Your task to perform on an android device: choose inbox layout in the gmail app Image 0: 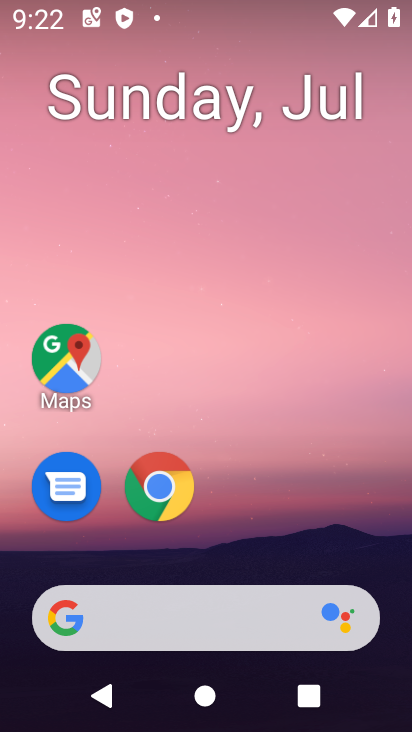
Step 0: drag from (349, 550) to (393, 100)
Your task to perform on an android device: choose inbox layout in the gmail app Image 1: 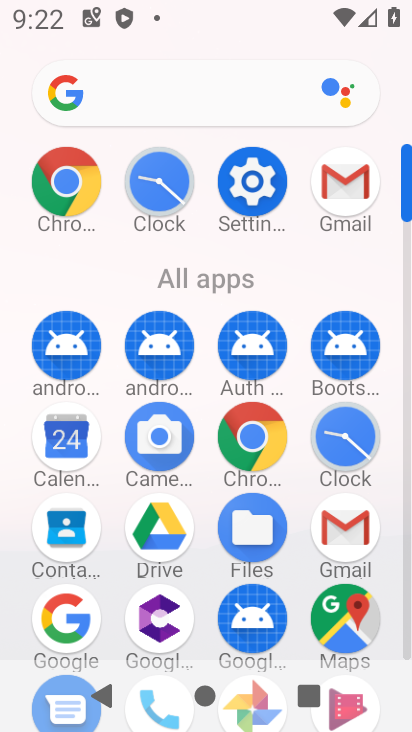
Step 1: click (346, 523)
Your task to perform on an android device: choose inbox layout in the gmail app Image 2: 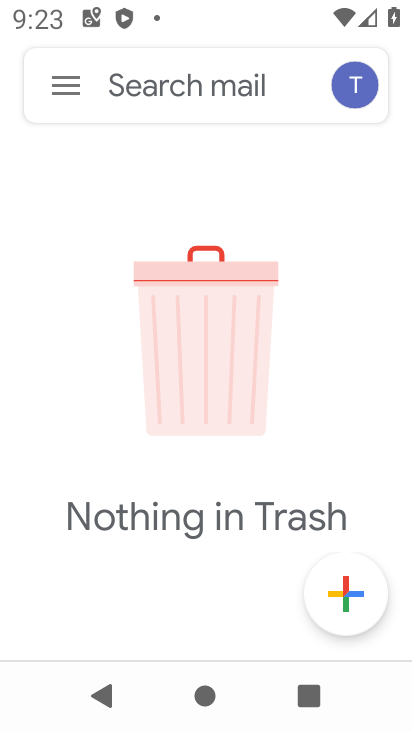
Step 2: click (71, 86)
Your task to perform on an android device: choose inbox layout in the gmail app Image 3: 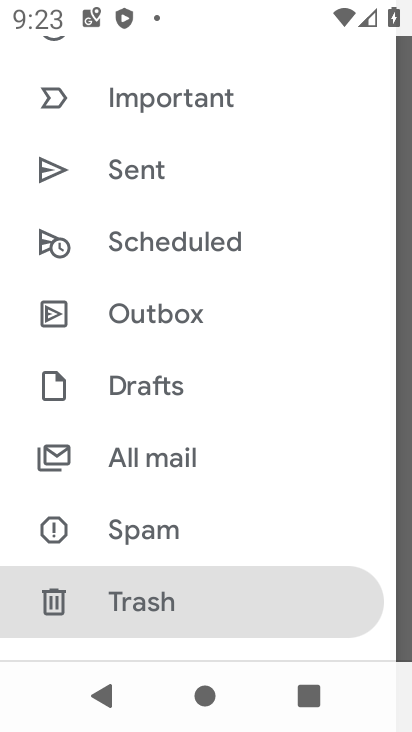
Step 3: drag from (302, 220) to (301, 345)
Your task to perform on an android device: choose inbox layout in the gmail app Image 4: 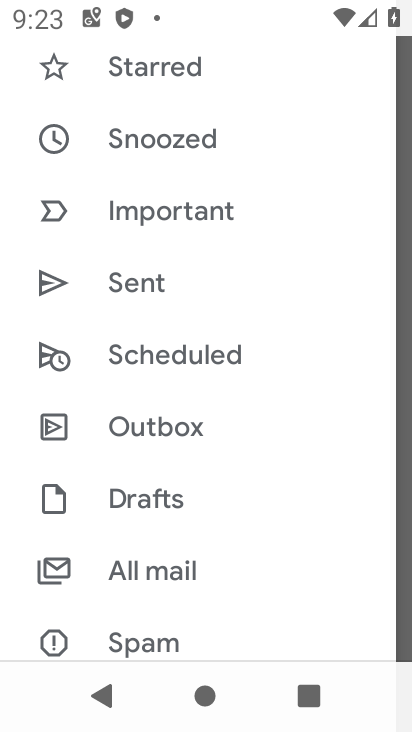
Step 4: drag from (300, 160) to (311, 364)
Your task to perform on an android device: choose inbox layout in the gmail app Image 5: 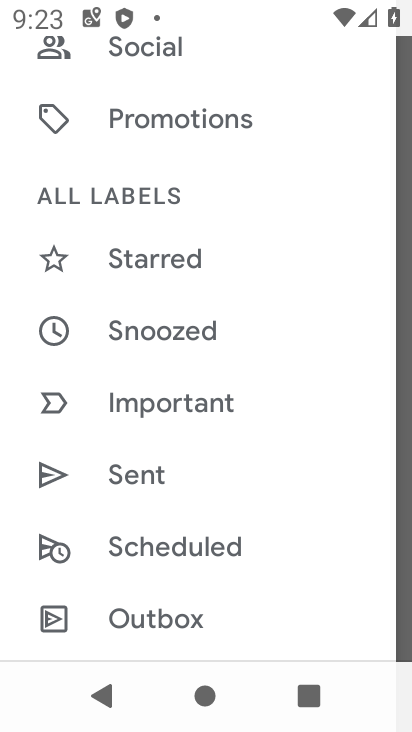
Step 5: drag from (305, 120) to (309, 332)
Your task to perform on an android device: choose inbox layout in the gmail app Image 6: 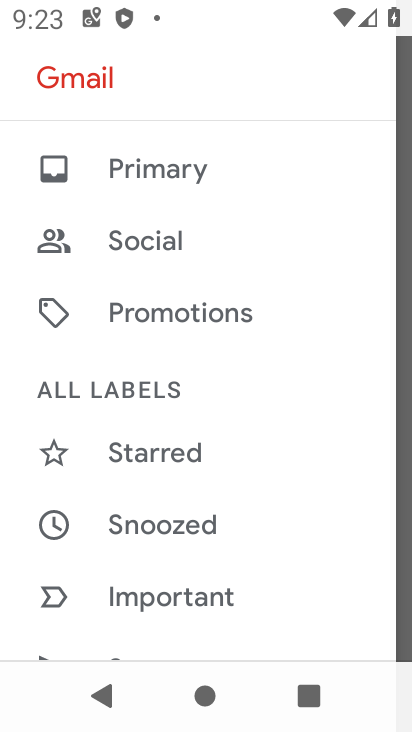
Step 6: drag from (330, 188) to (328, 323)
Your task to perform on an android device: choose inbox layout in the gmail app Image 7: 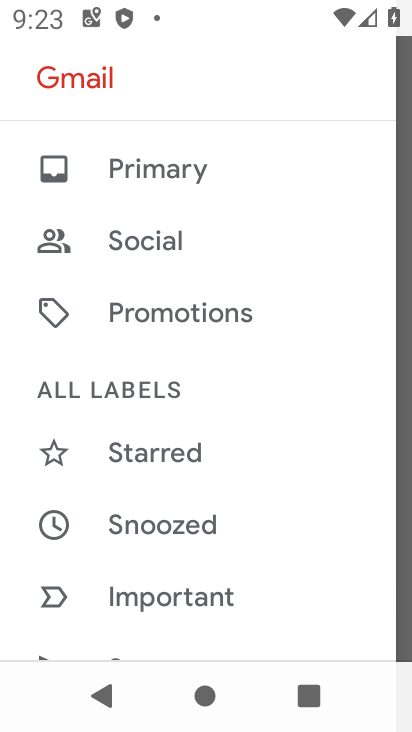
Step 7: drag from (320, 404) to (329, 317)
Your task to perform on an android device: choose inbox layout in the gmail app Image 8: 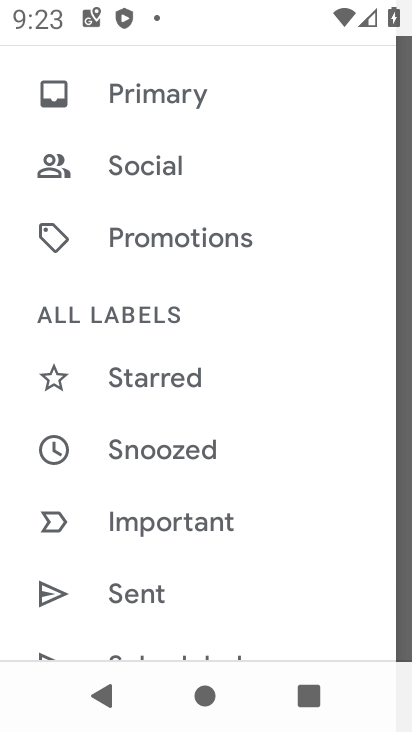
Step 8: drag from (324, 451) to (340, 315)
Your task to perform on an android device: choose inbox layout in the gmail app Image 9: 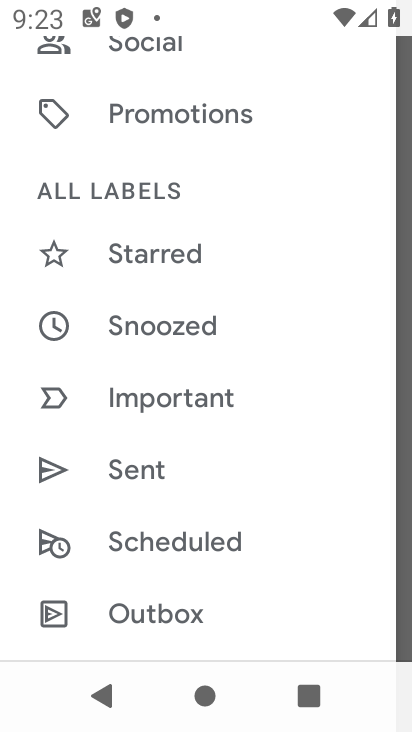
Step 9: drag from (327, 453) to (322, 314)
Your task to perform on an android device: choose inbox layout in the gmail app Image 10: 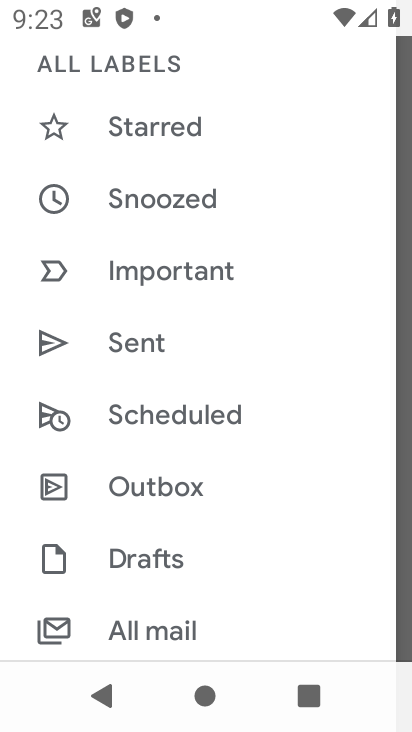
Step 10: drag from (323, 470) to (322, 357)
Your task to perform on an android device: choose inbox layout in the gmail app Image 11: 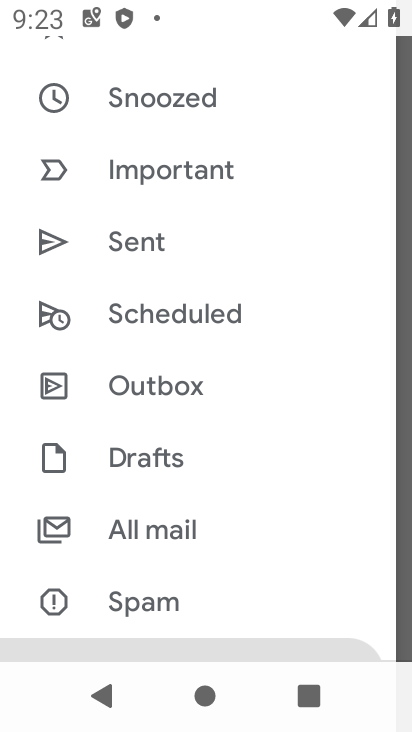
Step 11: drag from (320, 515) to (323, 346)
Your task to perform on an android device: choose inbox layout in the gmail app Image 12: 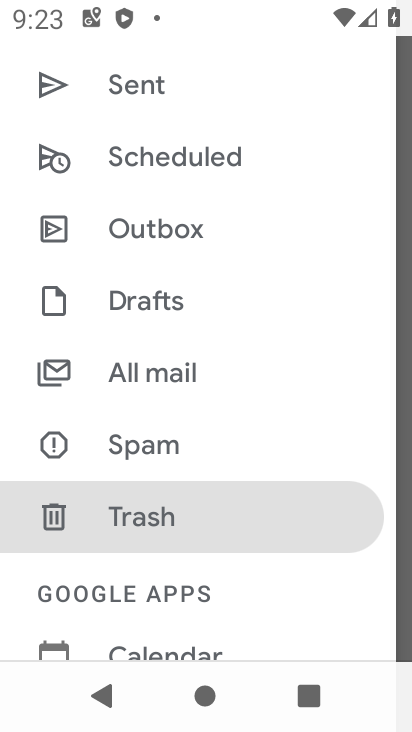
Step 12: drag from (323, 579) to (317, 342)
Your task to perform on an android device: choose inbox layout in the gmail app Image 13: 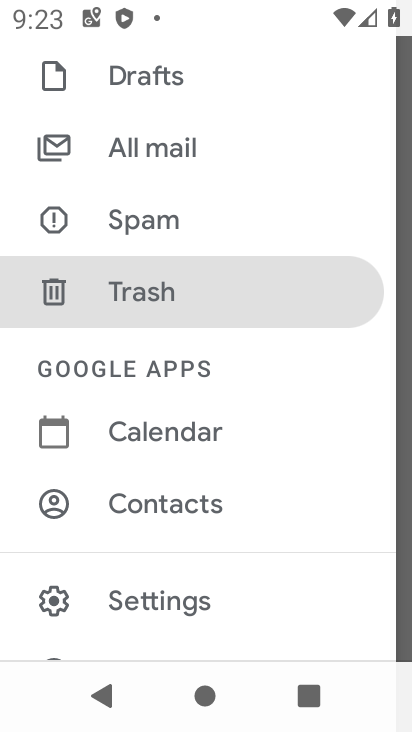
Step 13: drag from (321, 596) to (317, 390)
Your task to perform on an android device: choose inbox layout in the gmail app Image 14: 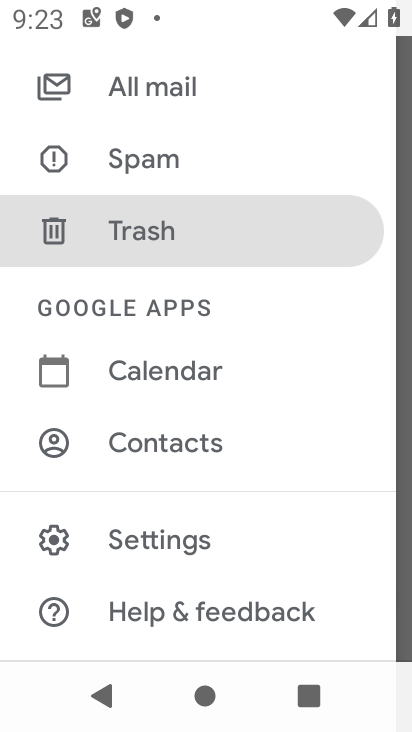
Step 14: click (281, 547)
Your task to perform on an android device: choose inbox layout in the gmail app Image 15: 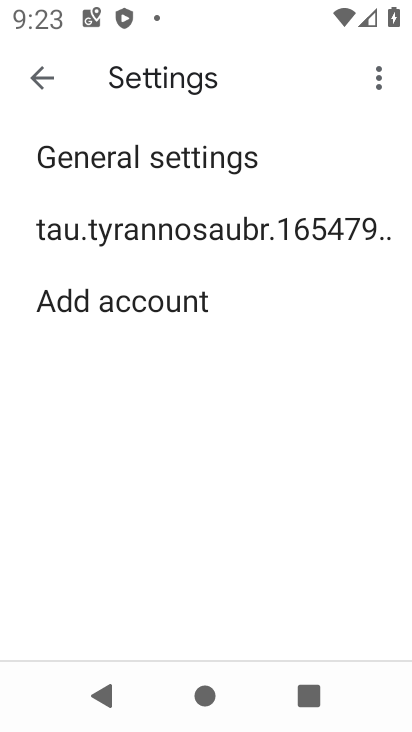
Step 15: click (235, 233)
Your task to perform on an android device: choose inbox layout in the gmail app Image 16: 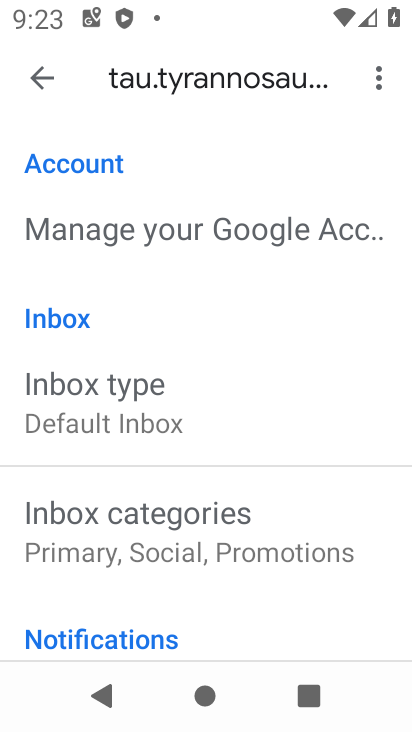
Step 16: click (210, 415)
Your task to perform on an android device: choose inbox layout in the gmail app Image 17: 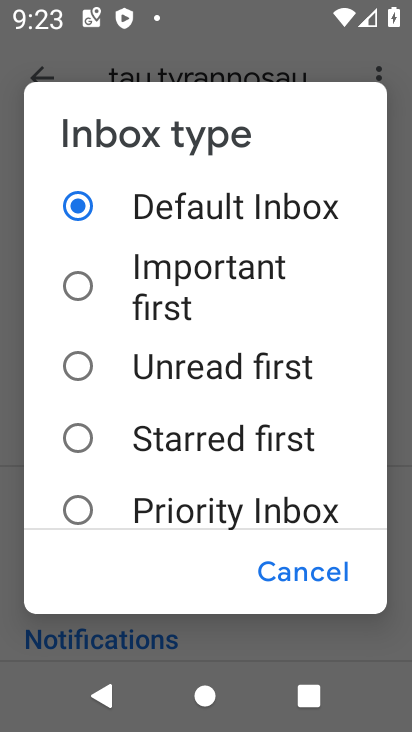
Step 17: click (228, 367)
Your task to perform on an android device: choose inbox layout in the gmail app Image 18: 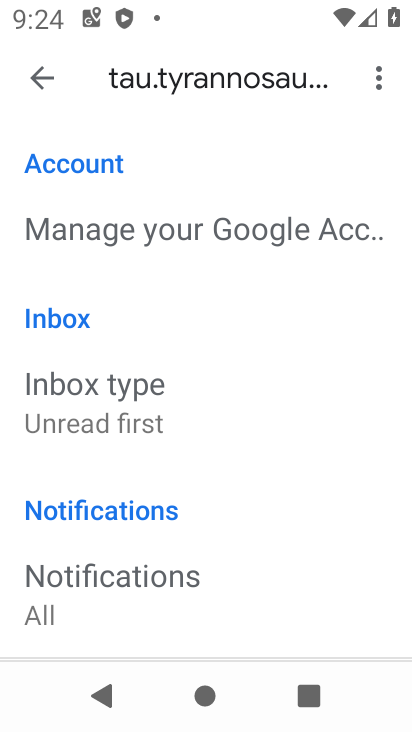
Step 18: task complete